Your task to perform on an android device: choose inbox layout in the gmail app Image 0: 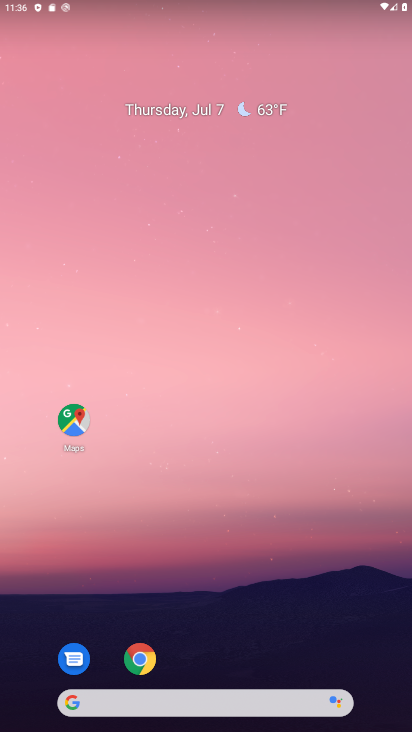
Step 0: drag from (191, 645) to (229, 45)
Your task to perform on an android device: choose inbox layout in the gmail app Image 1: 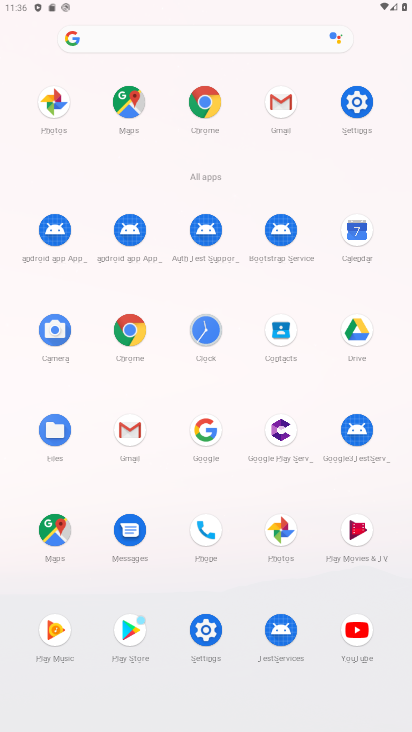
Step 1: click (142, 428)
Your task to perform on an android device: choose inbox layout in the gmail app Image 2: 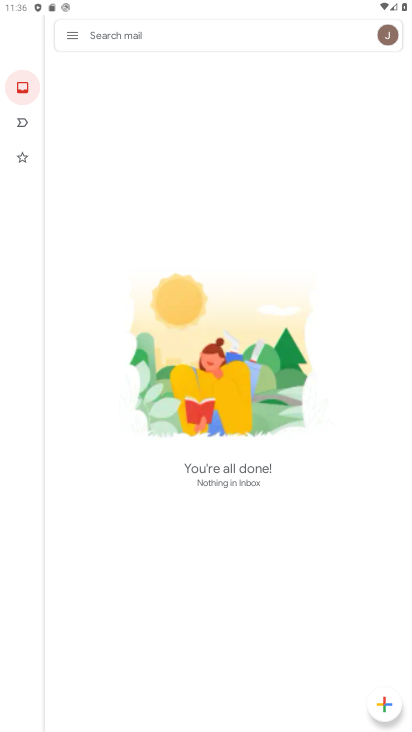
Step 2: click (55, 32)
Your task to perform on an android device: choose inbox layout in the gmail app Image 3: 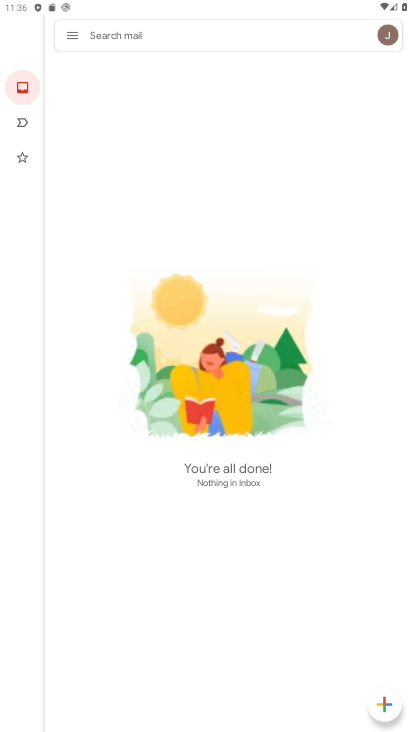
Step 3: click (76, 31)
Your task to perform on an android device: choose inbox layout in the gmail app Image 4: 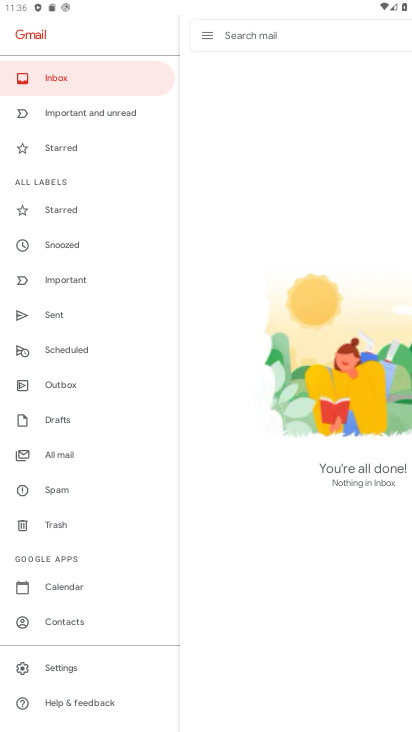
Step 4: click (66, 671)
Your task to perform on an android device: choose inbox layout in the gmail app Image 5: 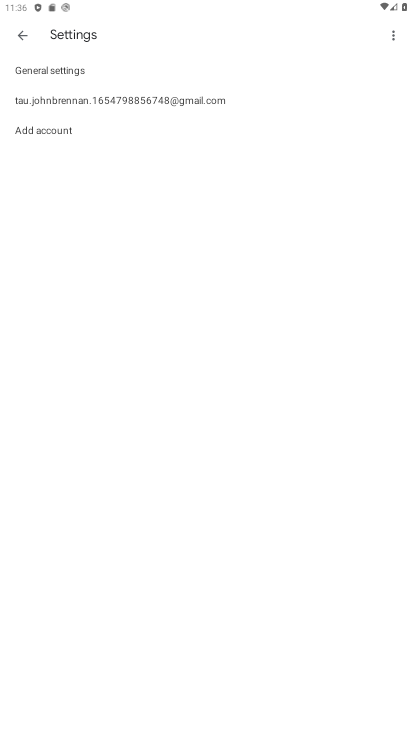
Step 5: click (102, 98)
Your task to perform on an android device: choose inbox layout in the gmail app Image 6: 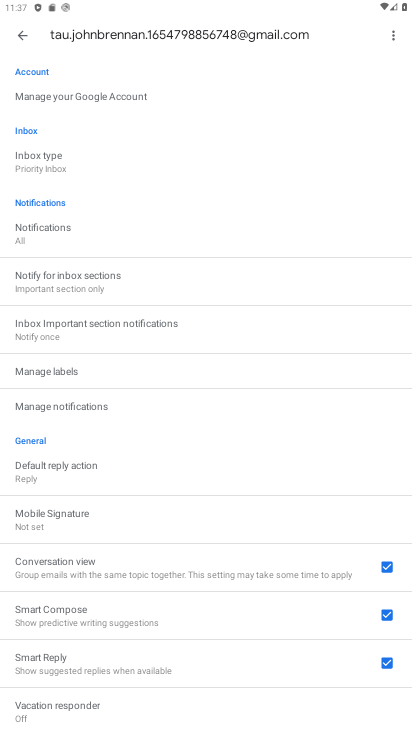
Step 6: click (47, 165)
Your task to perform on an android device: choose inbox layout in the gmail app Image 7: 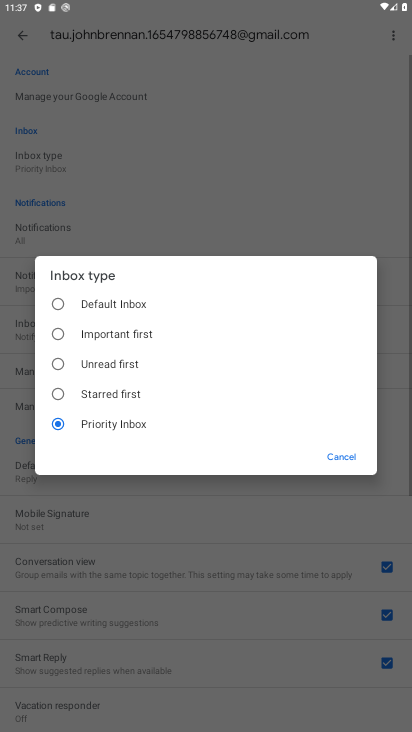
Step 7: click (113, 299)
Your task to perform on an android device: choose inbox layout in the gmail app Image 8: 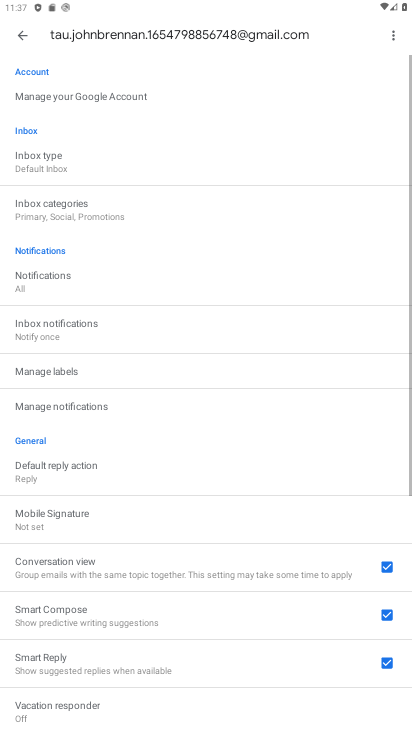
Step 8: task complete